Your task to perform on an android device: turn off priority inbox in the gmail app Image 0: 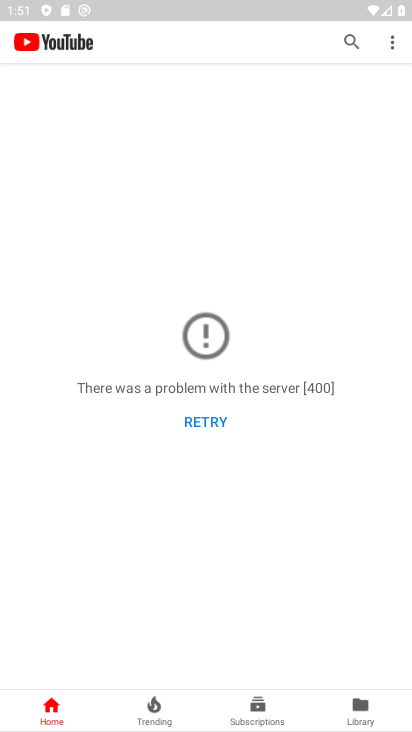
Step 0: press home button
Your task to perform on an android device: turn off priority inbox in the gmail app Image 1: 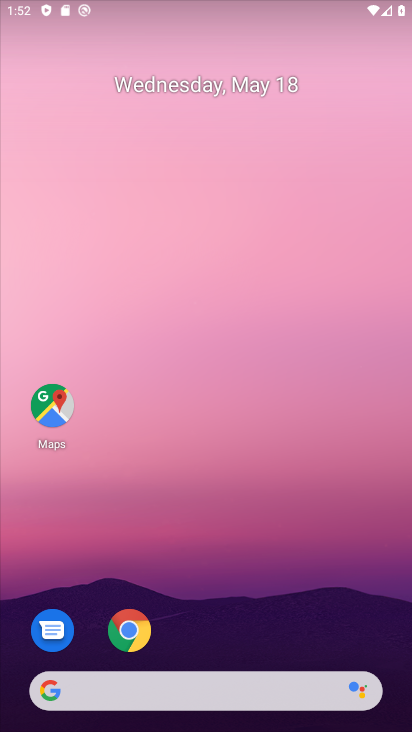
Step 1: drag from (230, 628) to (232, 217)
Your task to perform on an android device: turn off priority inbox in the gmail app Image 2: 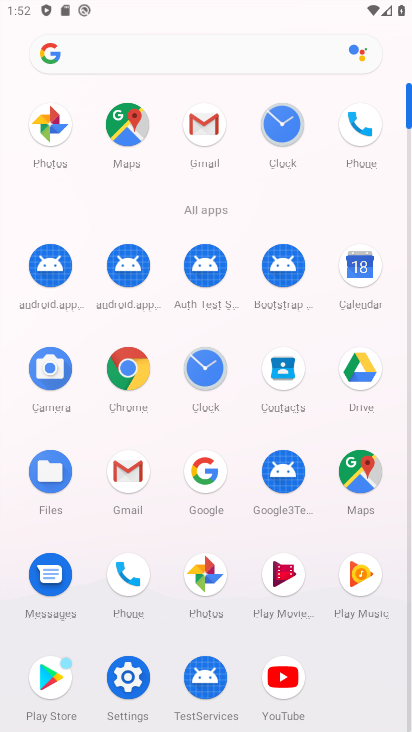
Step 2: click (218, 157)
Your task to perform on an android device: turn off priority inbox in the gmail app Image 3: 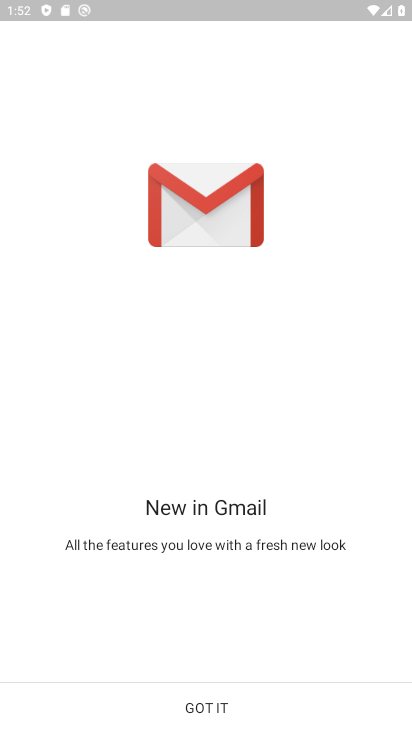
Step 3: click (207, 701)
Your task to perform on an android device: turn off priority inbox in the gmail app Image 4: 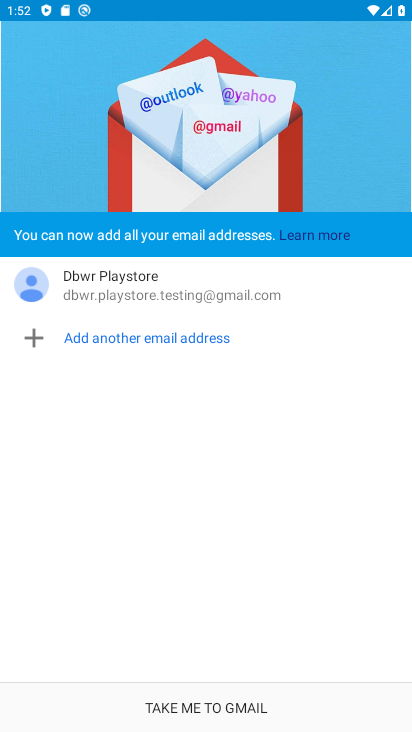
Step 4: click (209, 698)
Your task to perform on an android device: turn off priority inbox in the gmail app Image 5: 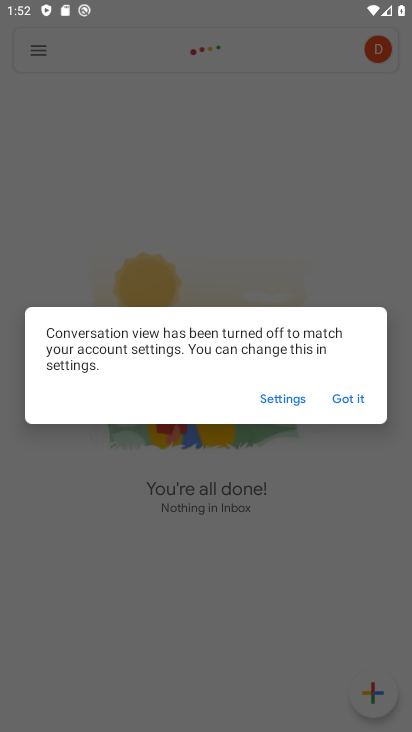
Step 5: click (341, 397)
Your task to perform on an android device: turn off priority inbox in the gmail app Image 6: 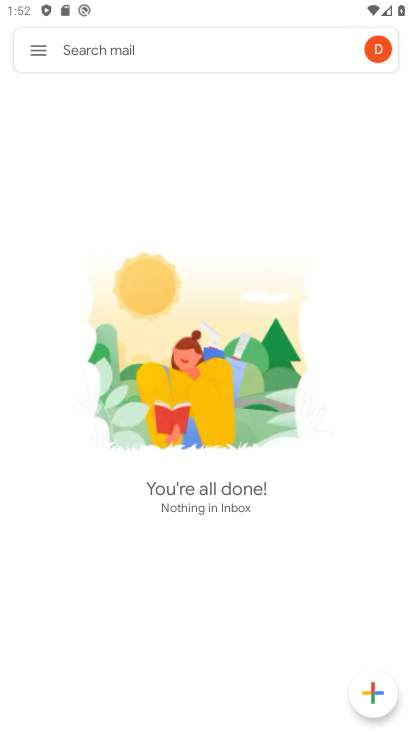
Step 6: click (41, 59)
Your task to perform on an android device: turn off priority inbox in the gmail app Image 7: 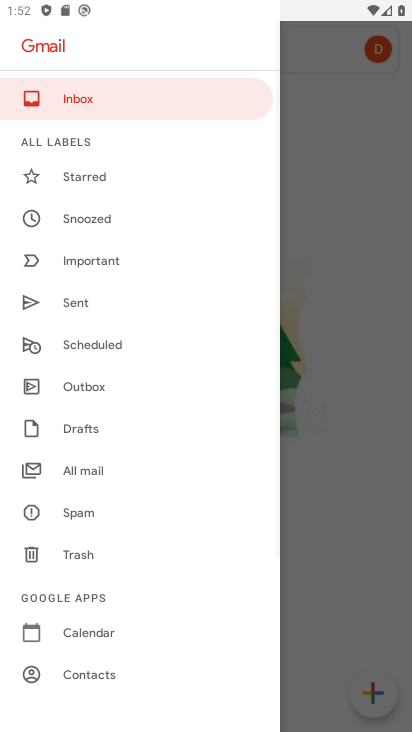
Step 7: drag from (110, 643) to (109, 236)
Your task to perform on an android device: turn off priority inbox in the gmail app Image 8: 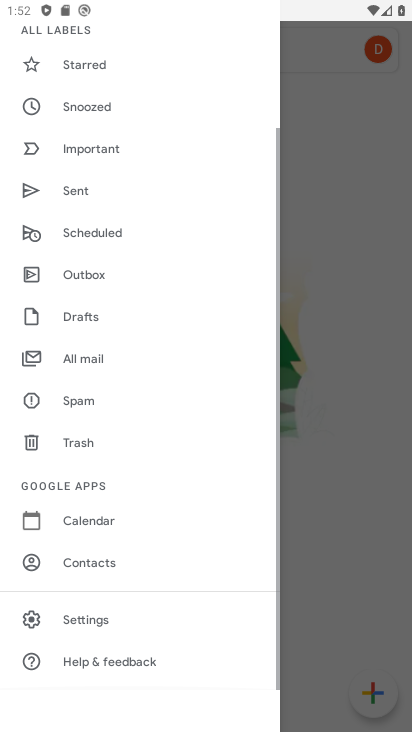
Step 8: click (110, 613)
Your task to perform on an android device: turn off priority inbox in the gmail app Image 9: 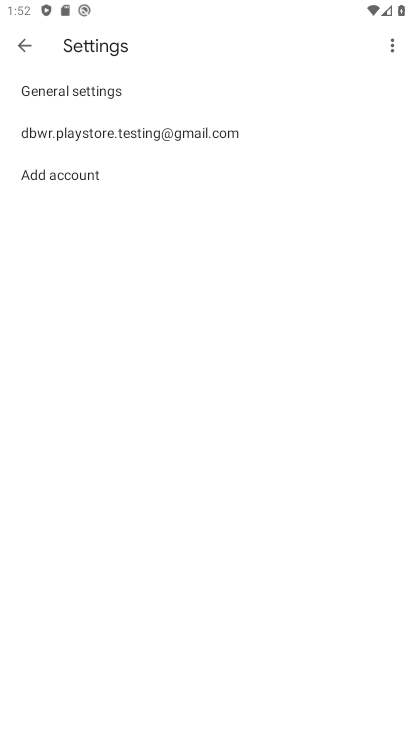
Step 9: click (198, 135)
Your task to perform on an android device: turn off priority inbox in the gmail app Image 10: 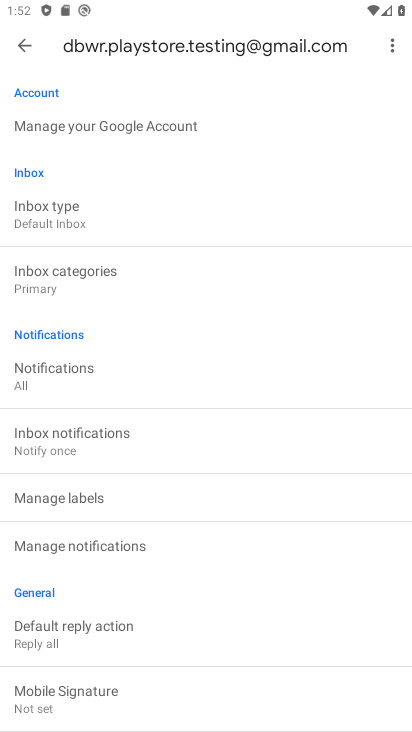
Step 10: drag from (183, 620) to (188, 574)
Your task to perform on an android device: turn off priority inbox in the gmail app Image 11: 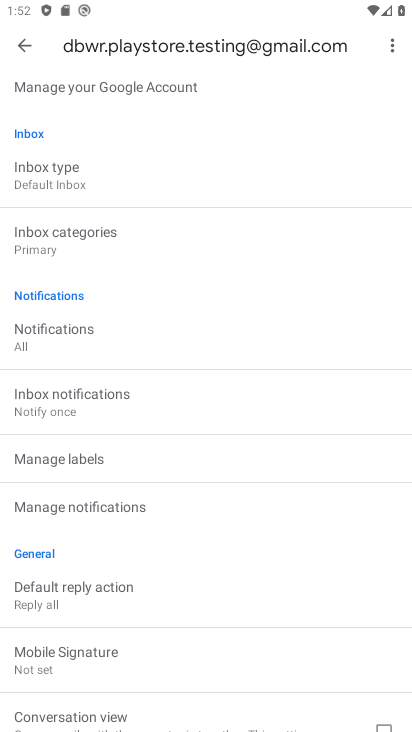
Step 11: click (122, 190)
Your task to perform on an android device: turn off priority inbox in the gmail app Image 12: 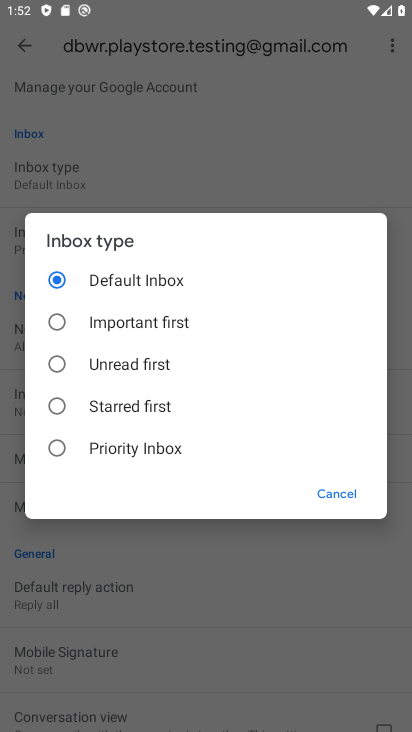
Step 12: task complete